Your task to perform on an android device: Go to Yahoo.com Image 0: 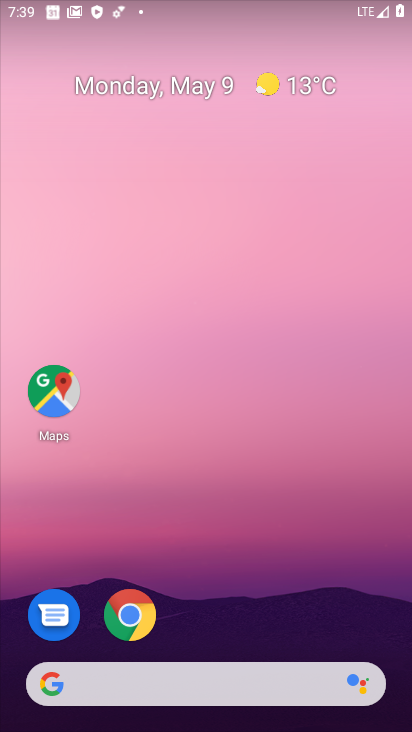
Step 0: click (125, 613)
Your task to perform on an android device: Go to Yahoo.com Image 1: 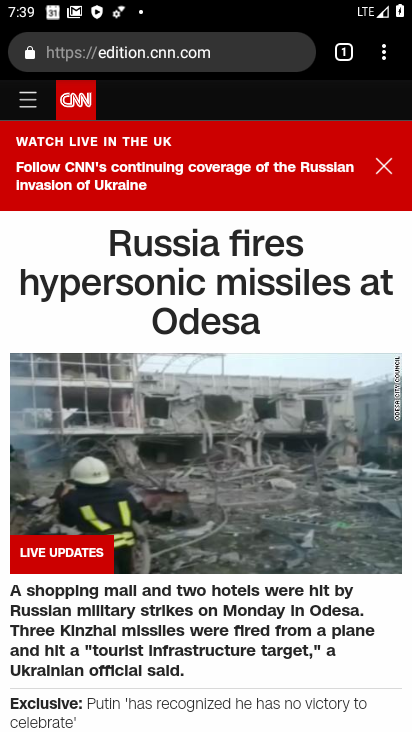
Step 1: click (337, 45)
Your task to perform on an android device: Go to Yahoo.com Image 2: 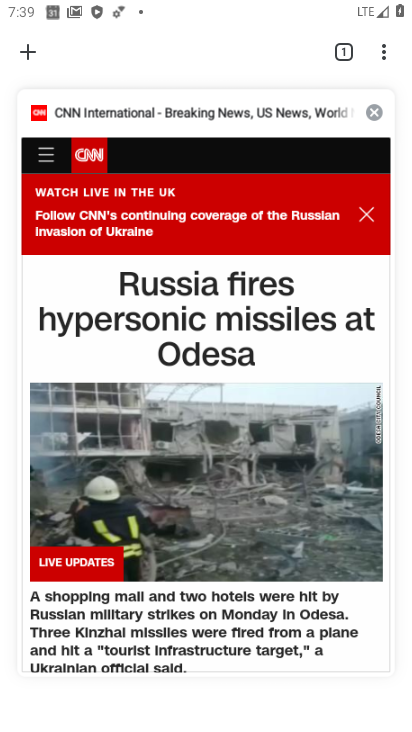
Step 2: click (33, 50)
Your task to perform on an android device: Go to Yahoo.com Image 3: 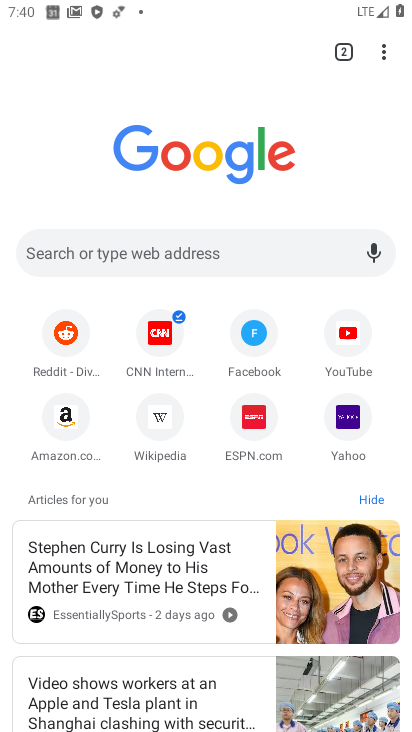
Step 3: click (354, 420)
Your task to perform on an android device: Go to Yahoo.com Image 4: 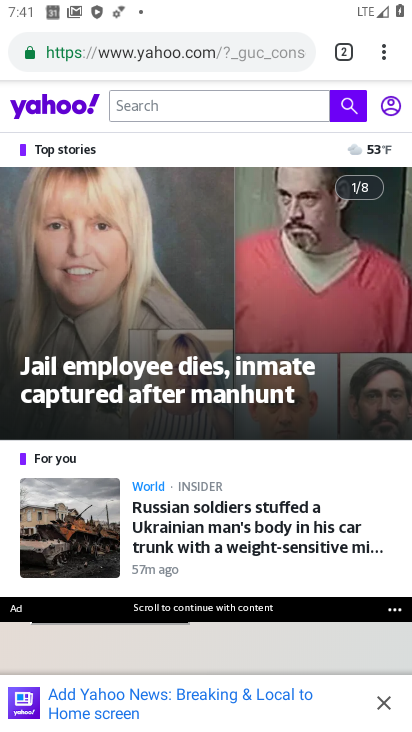
Step 4: task complete